Your task to perform on an android device: Open Google Chrome and click the shortcut for Amazon.com Image 0: 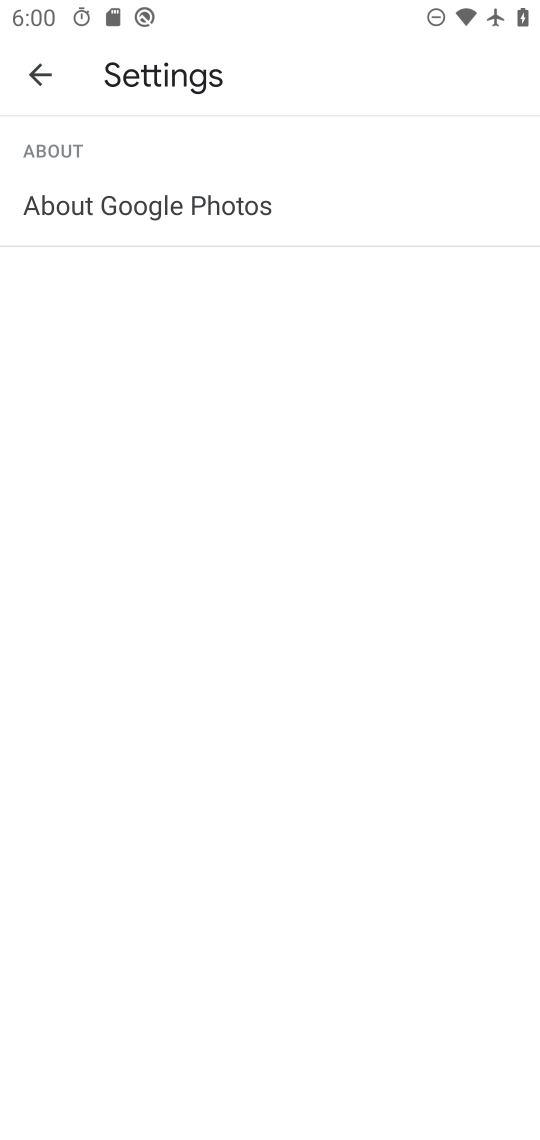
Step 0: press home button
Your task to perform on an android device: Open Google Chrome and click the shortcut for Amazon.com Image 1: 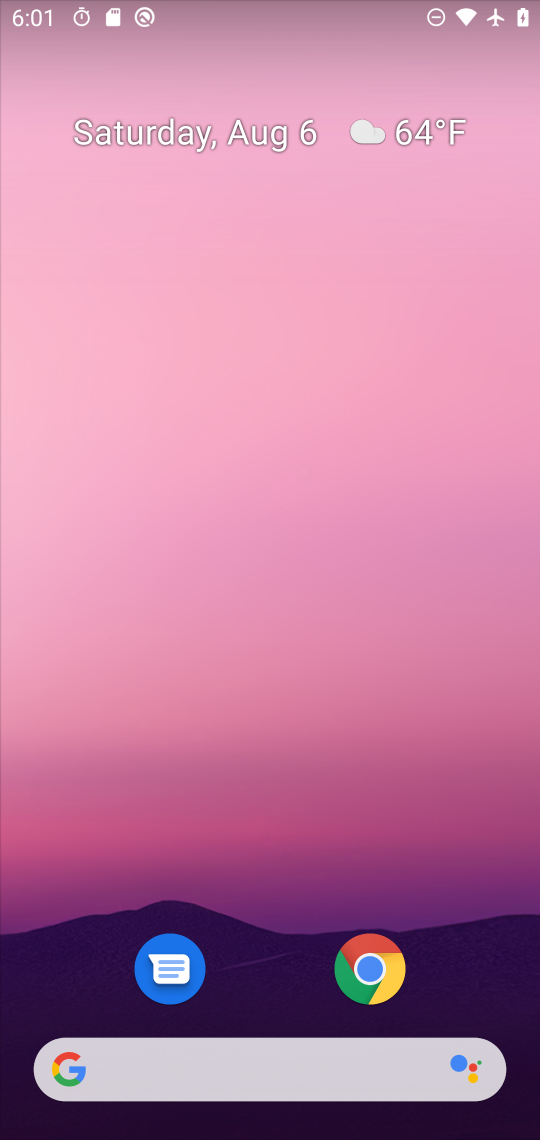
Step 1: drag from (289, 1010) to (211, 376)
Your task to perform on an android device: Open Google Chrome and click the shortcut for Amazon.com Image 2: 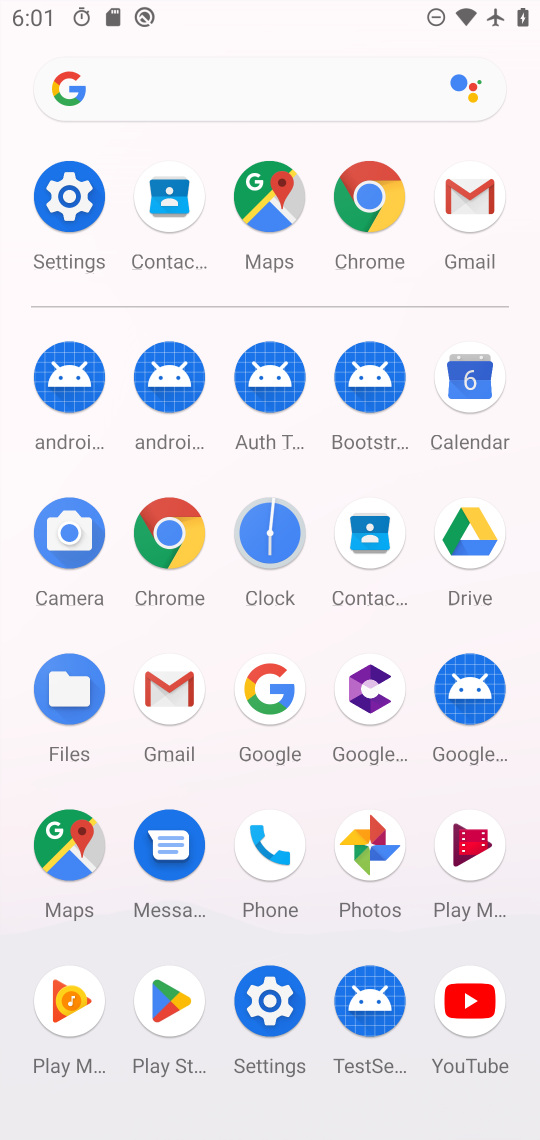
Step 2: click (374, 206)
Your task to perform on an android device: Open Google Chrome and click the shortcut for Amazon.com Image 3: 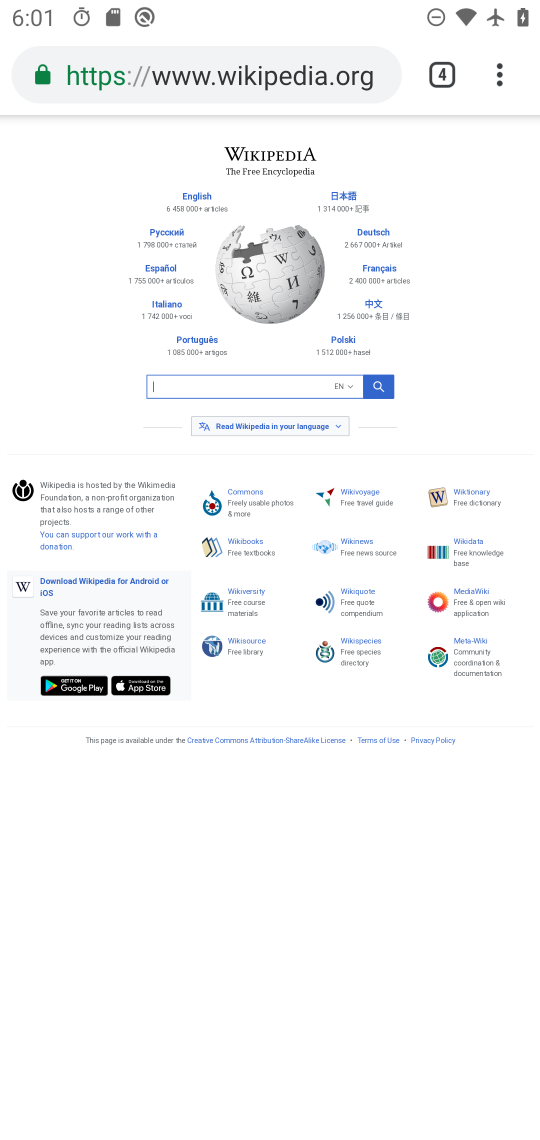
Step 3: click (434, 66)
Your task to perform on an android device: Open Google Chrome and click the shortcut for Amazon.com Image 4: 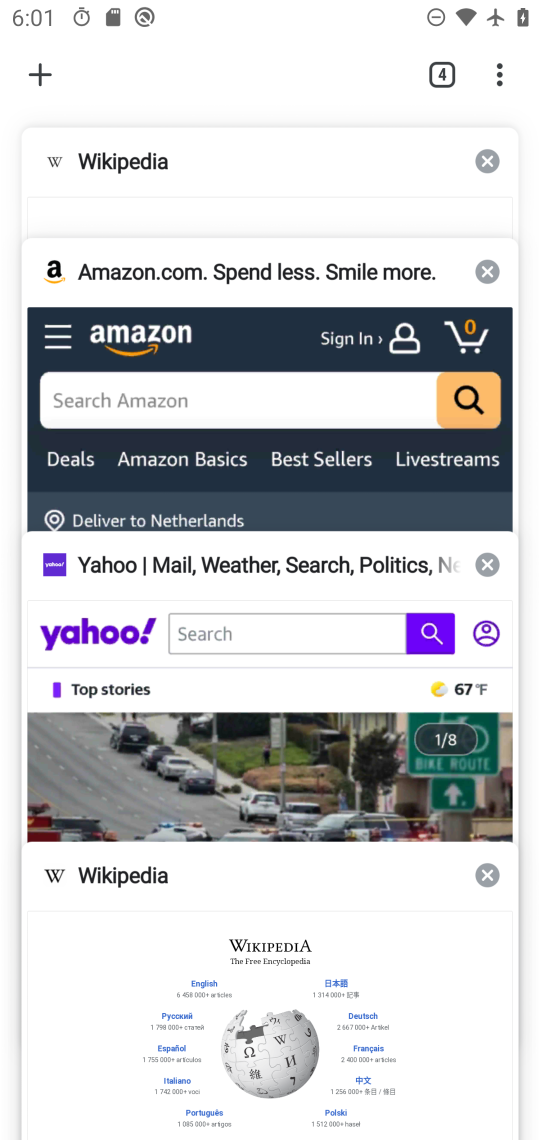
Step 4: click (51, 84)
Your task to perform on an android device: Open Google Chrome and click the shortcut for Amazon.com Image 5: 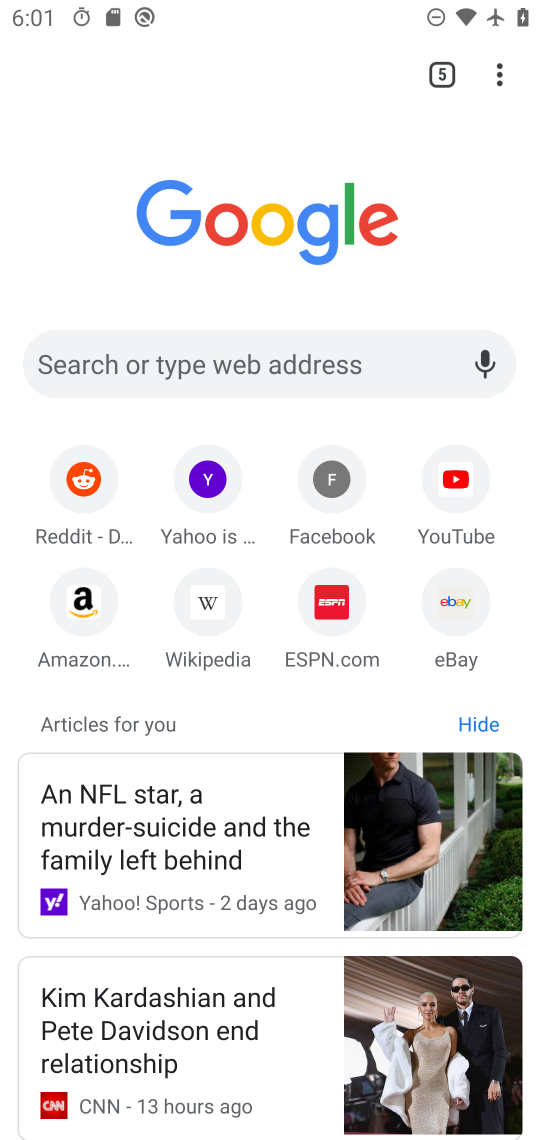
Step 5: click (84, 602)
Your task to perform on an android device: Open Google Chrome and click the shortcut for Amazon.com Image 6: 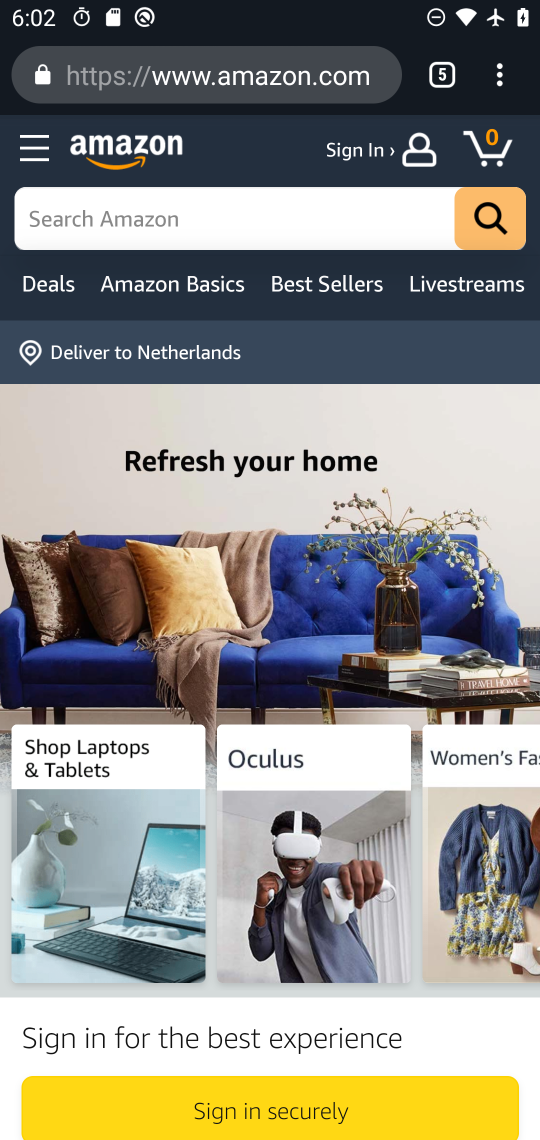
Step 6: task complete